Your task to perform on an android device: open app "Google Sheets" Image 0: 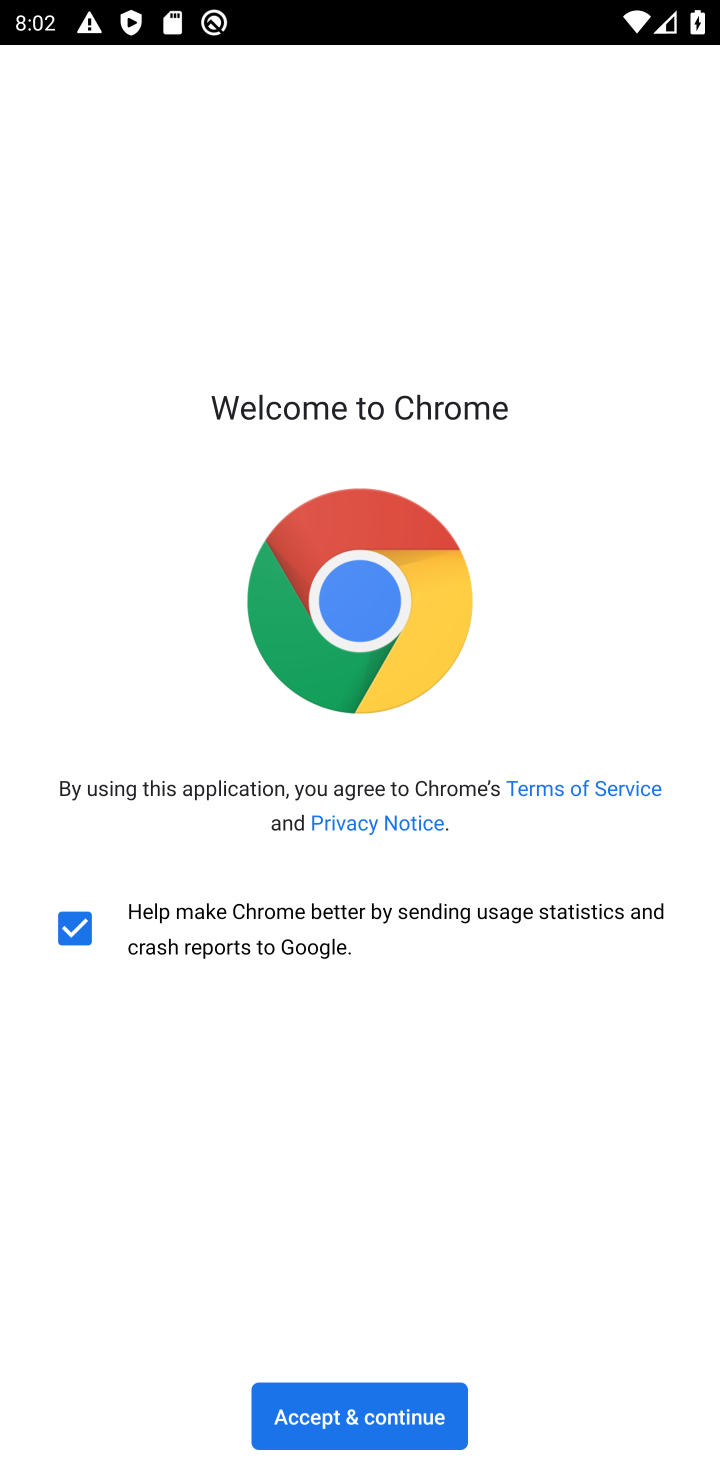
Step 0: press home button
Your task to perform on an android device: open app "Google Sheets" Image 1: 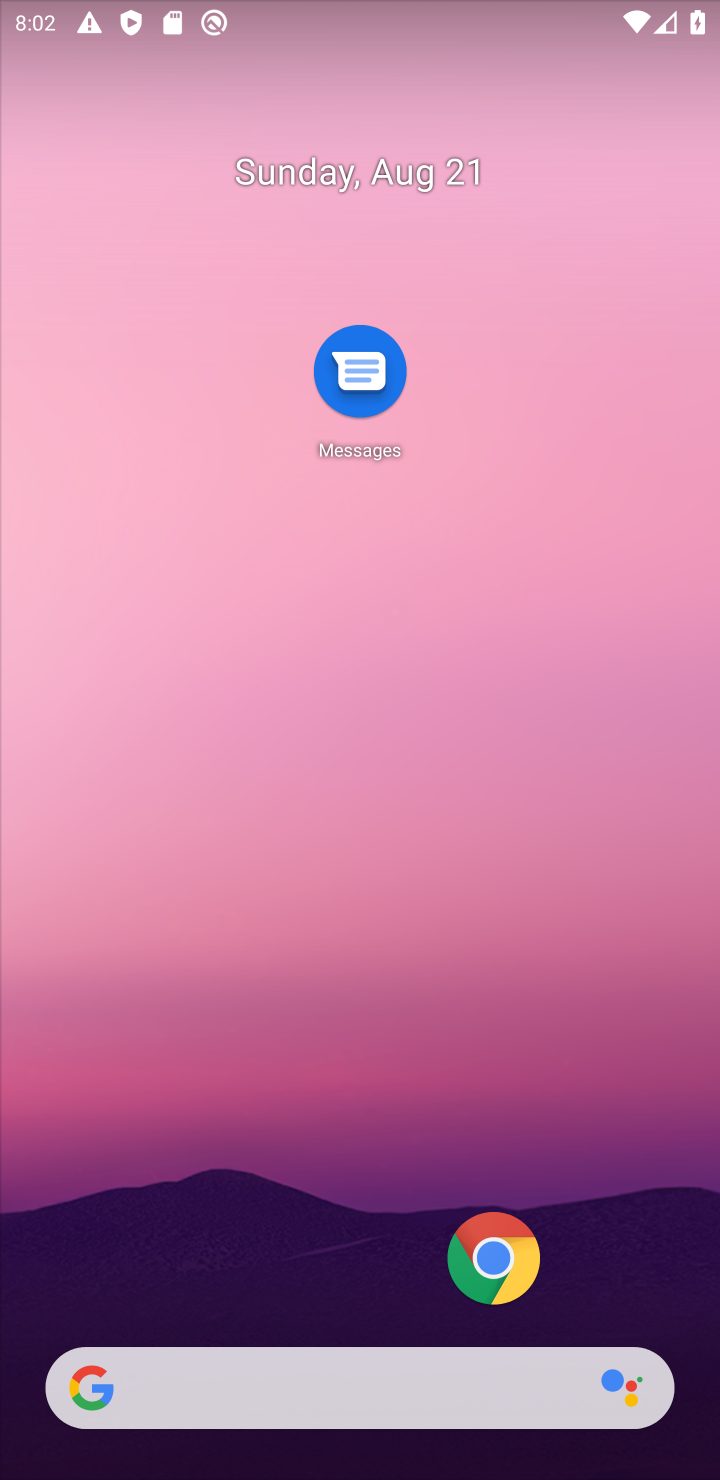
Step 1: drag from (334, 1427) to (551, 395)
Your task to perform on an android device: open app "Google Sheets" Image 2: 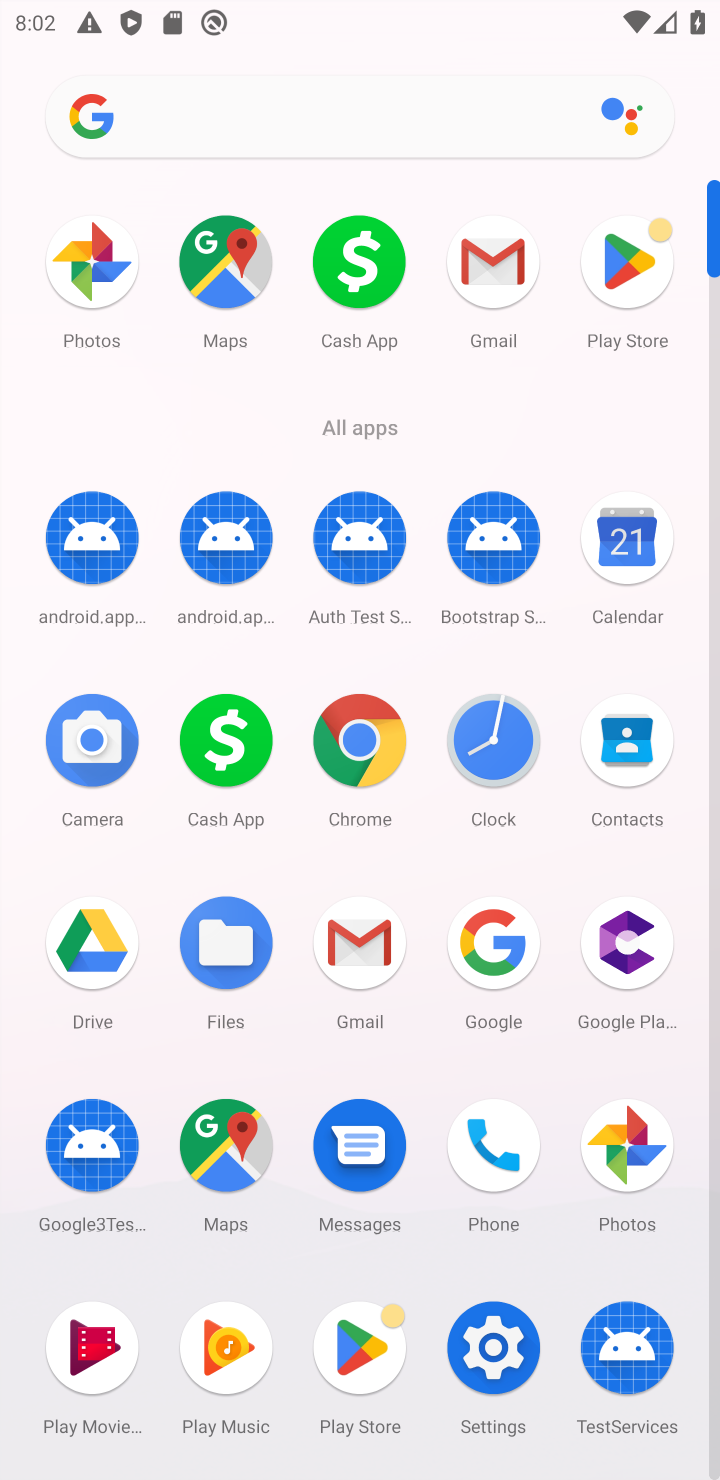
Step 2: click (627, 258)
Your task to perform on an android device: open app "Google Sheets" Image 3: 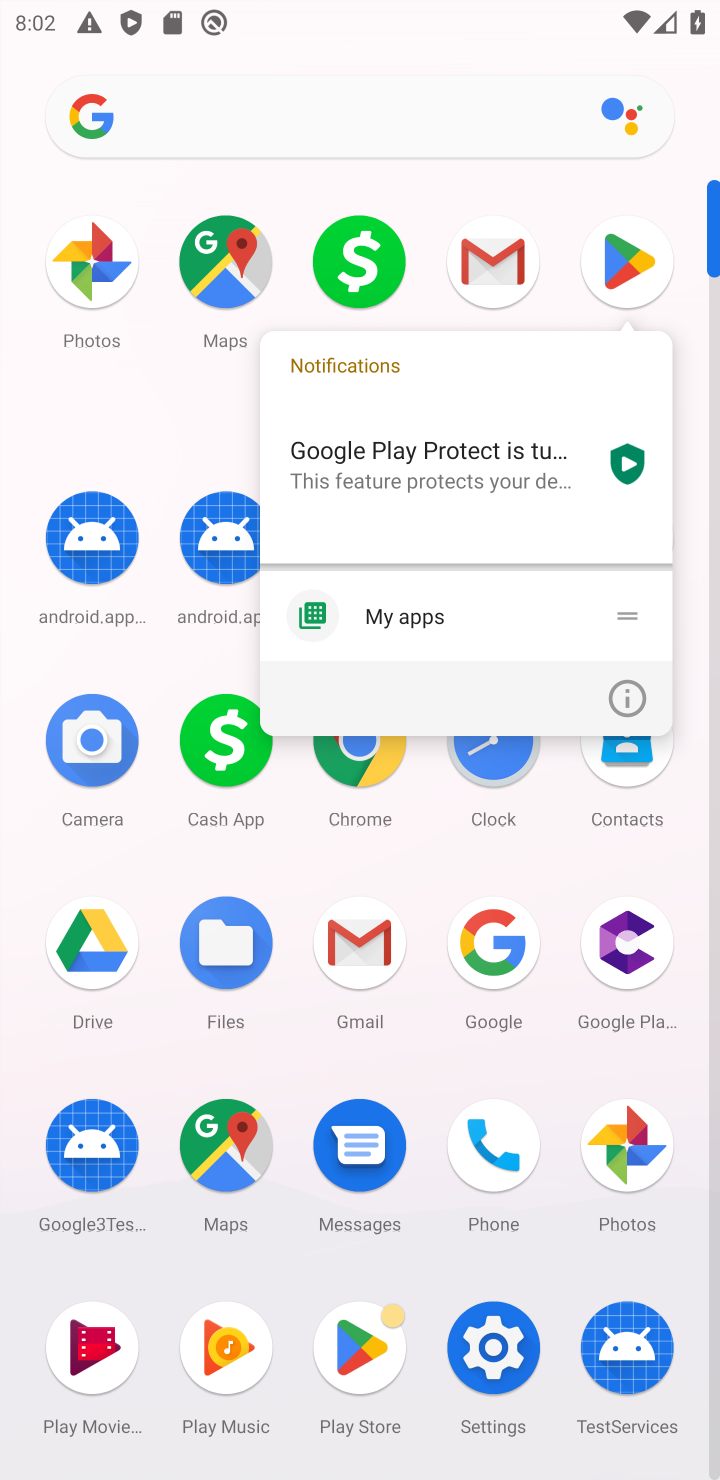
Step 3: click (625, 257)
Your task to perform on an android device: open app "Google Sheets" Image 4: 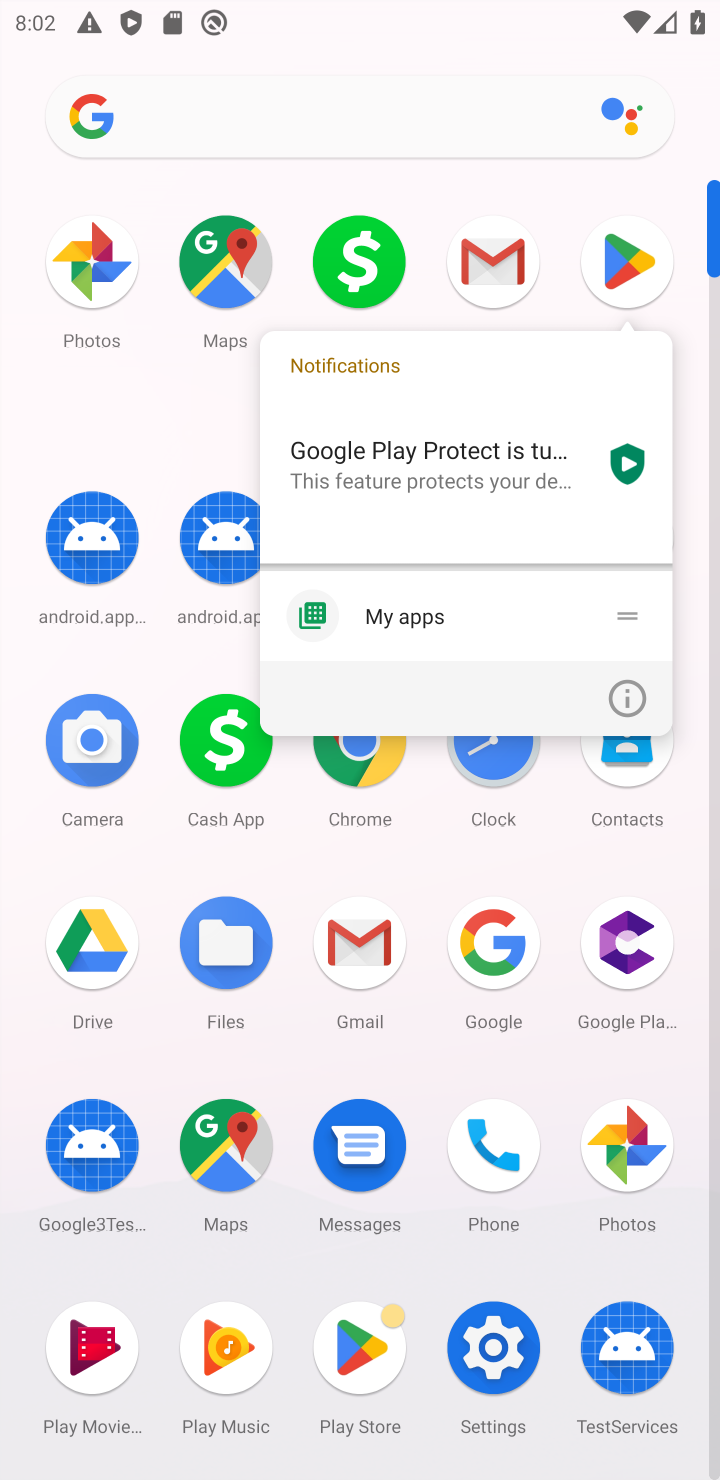
Step 4: click (625, 257)
Your task to perform on an android device: open app "Google Sheets" Image 5: 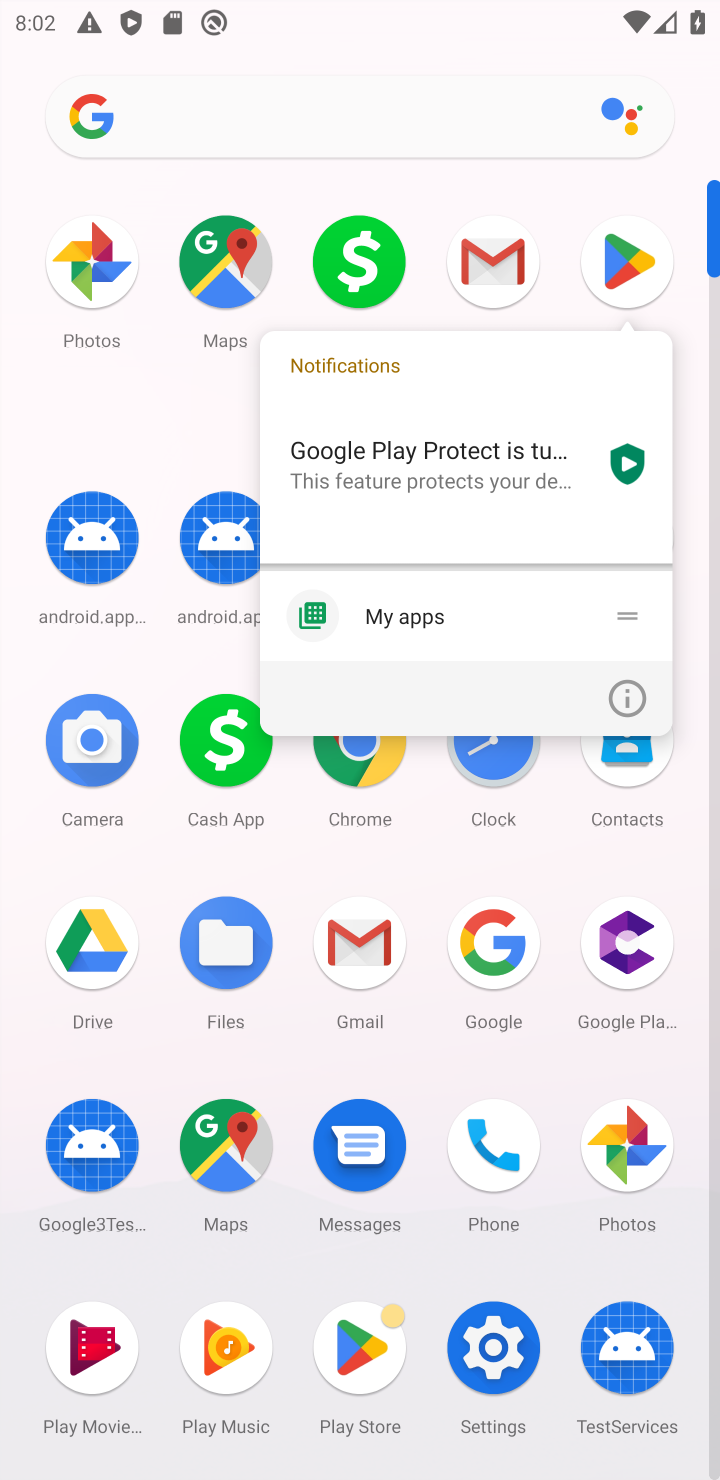
Step 5: click (571, 295)
Your task to perform on an android device: open app "Google Sheets" Image 6: 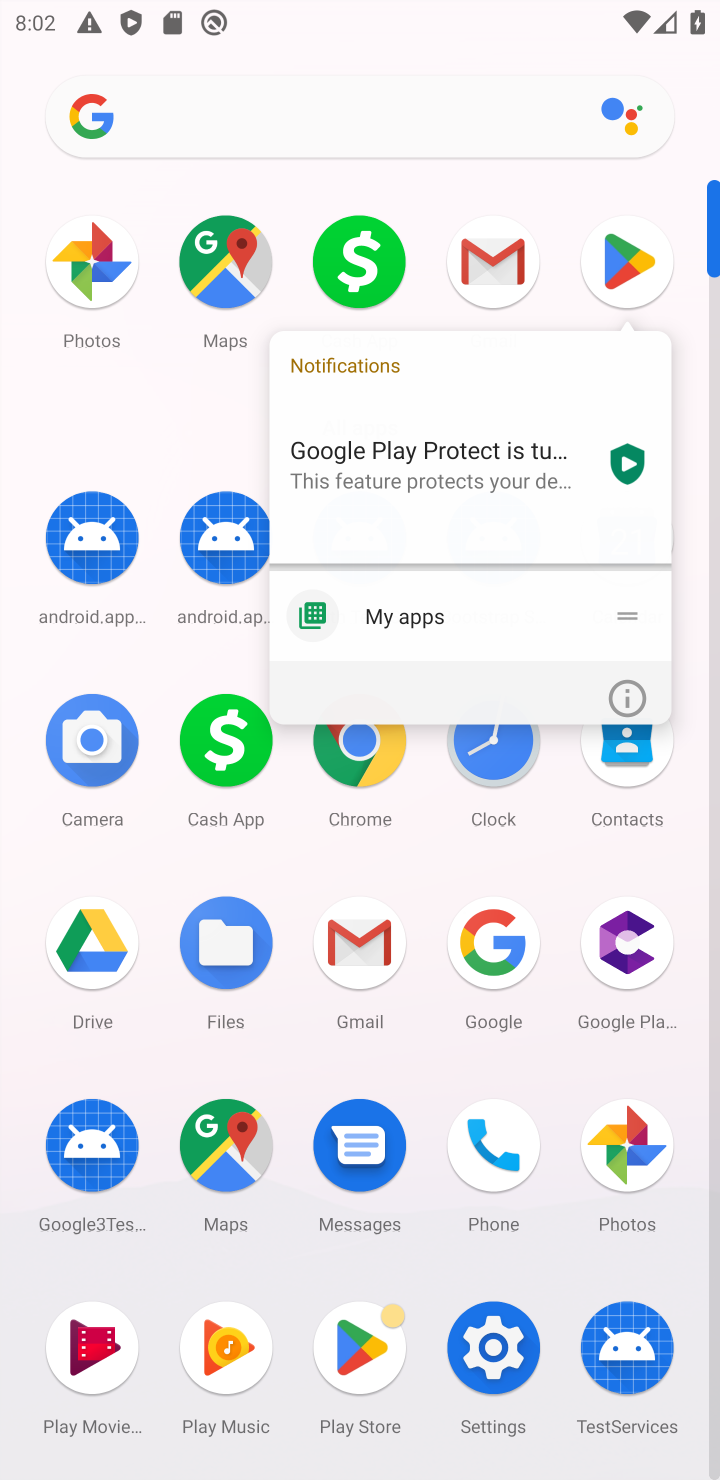
Step 6: click (628, 269)
Your task to perform on an android device: open app "Google Sheets" Image 7: 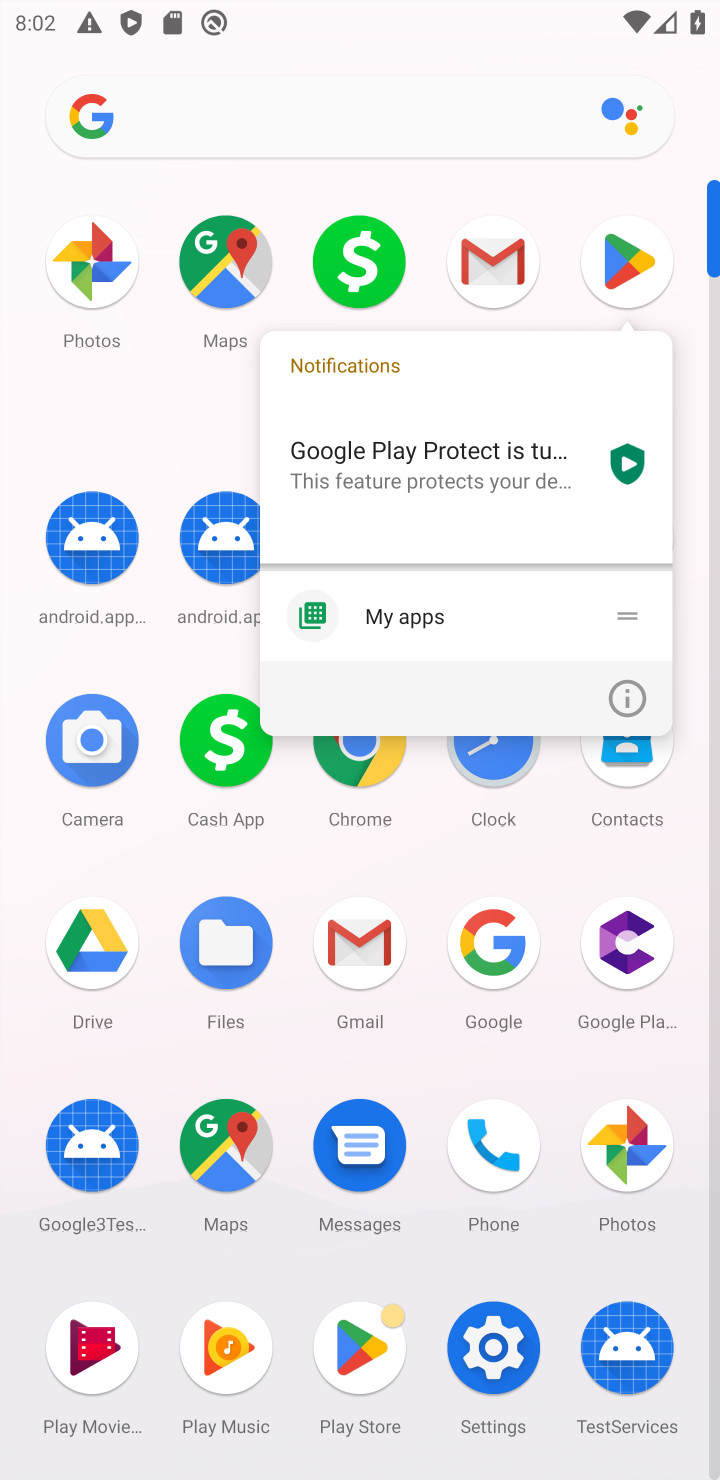
Step 7: click (628, 269)
Your task to perform on an android device: open app "Google Sheets" Image 8: 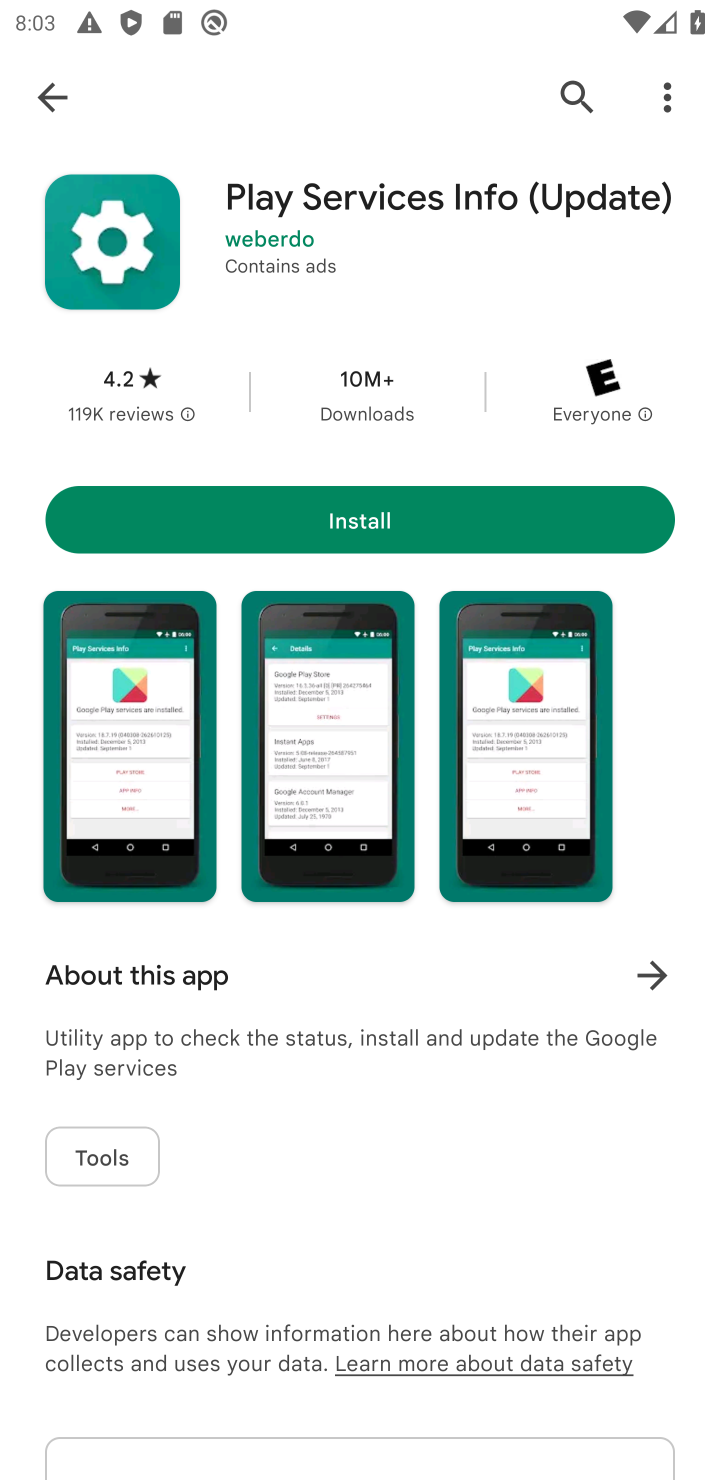
Step 8: task complete